Your task to perform on an android device: toggle pop-ups in chrome Image 0: 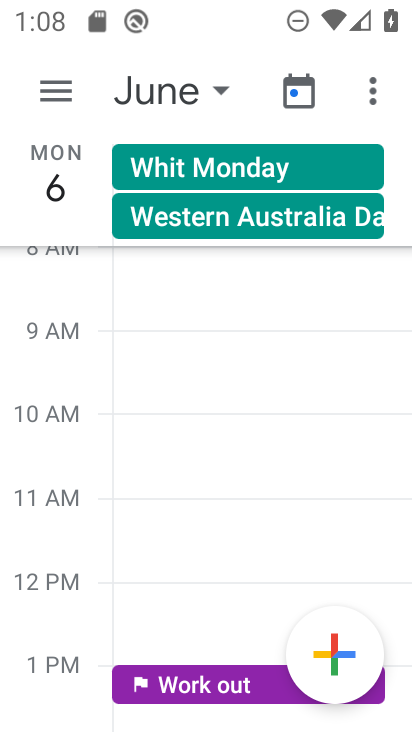
Step 0: press home button
Your task to perform on an android device: toggle pop-ups in chrome Image 1: 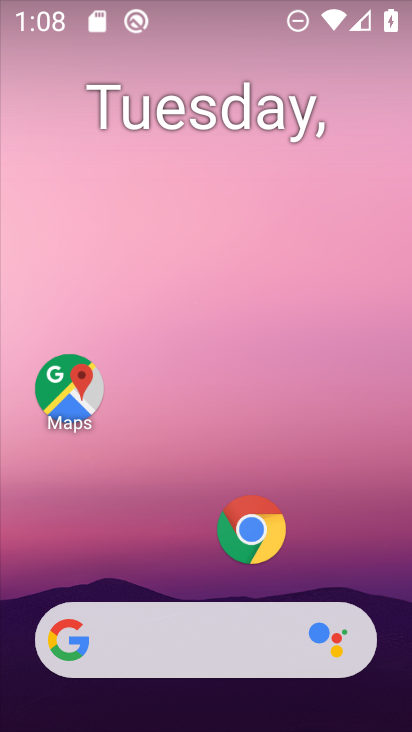
Step 1: click (263, 526)
Your task to perform on an android device: toggle pop-ups in chrome Image 2: 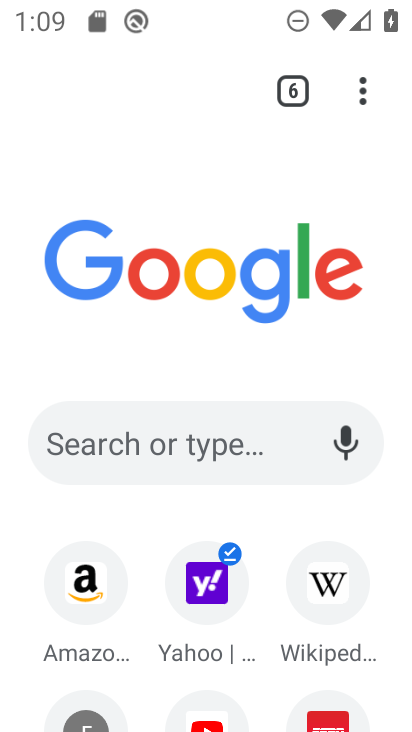
Step 2: click (362, 92)
Your task to perform on an android device: toggle pop-ups in chrome Image 3: 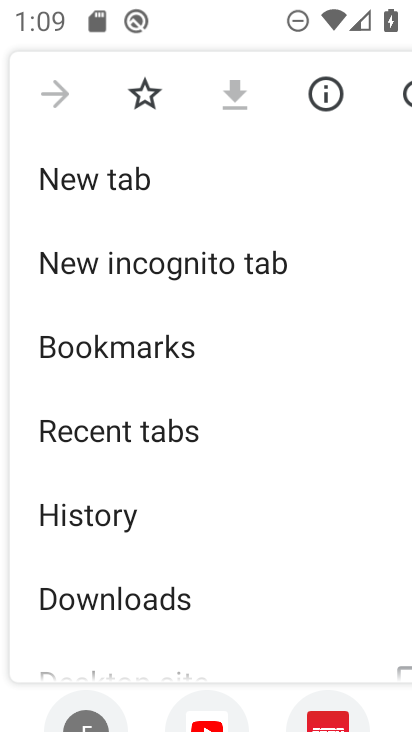
Step 3: drag from (74, 647) to (121, 335)
Your task to perform on an android device: toggle pop-ups in chrome Image 4: 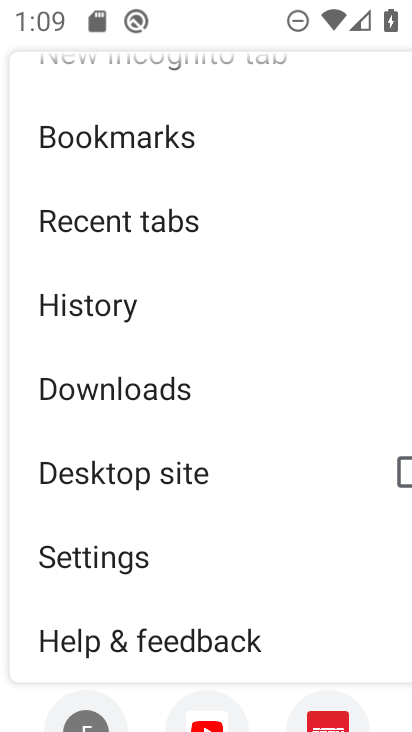
Step 4: click (133, 539)
Your task to perform on an android device: toggle pop-ups in chrome Image 5: 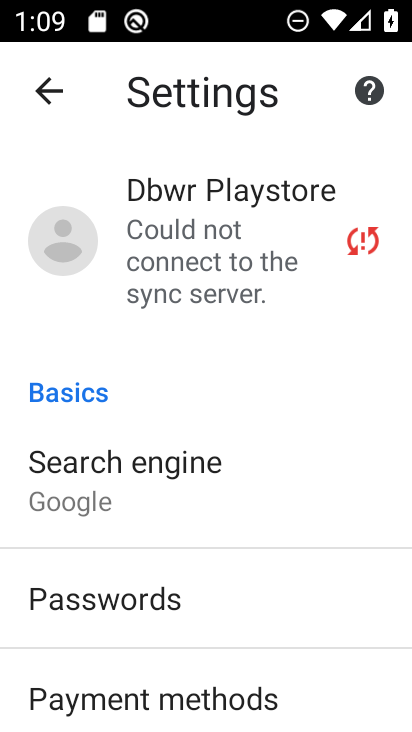
Step 5: drag from (106, 574) to (78, 153)
Your task to perform on an android device: toggle pop-ups in chrome Image 6: 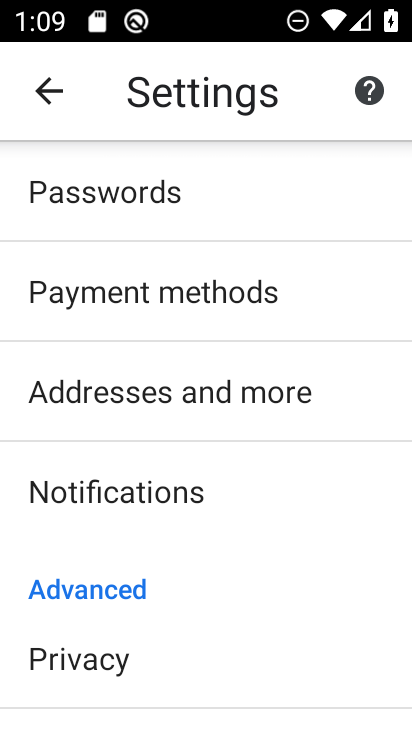
Step 6: drag from (218, 617) to (214, 351)
Your task to perform on an android device: toggle pop-ups in chrome Image 7: 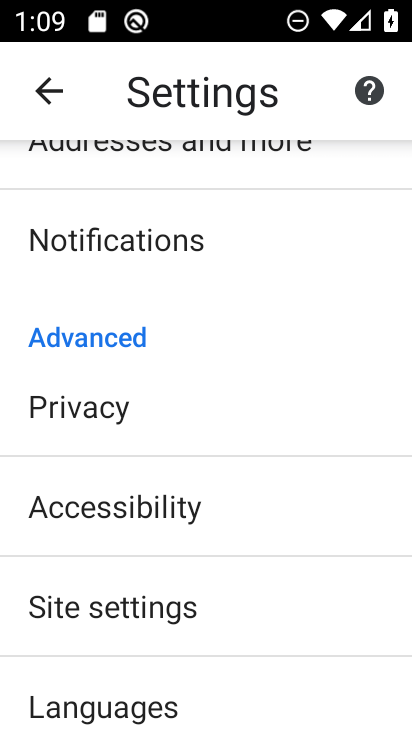
Step 7: click (103, 601)
Your task to perform on an android device: toggle pop-ups in chrome Image 8: 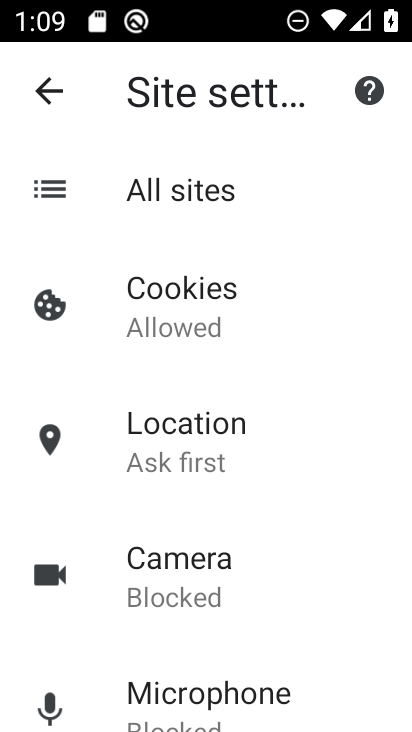
Step 8: drag from (190, 613) to (283, 341)
Your task to perform on an android device: toggle pop-ups in chrome Image 9: 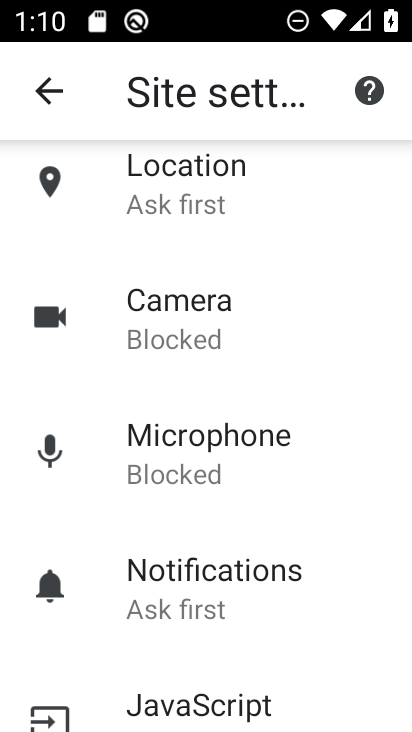
Step 9: drag from (196, 596) to (248, 388)
Your task to perform on an android device: toggle pop-ups in chrome Image 10: 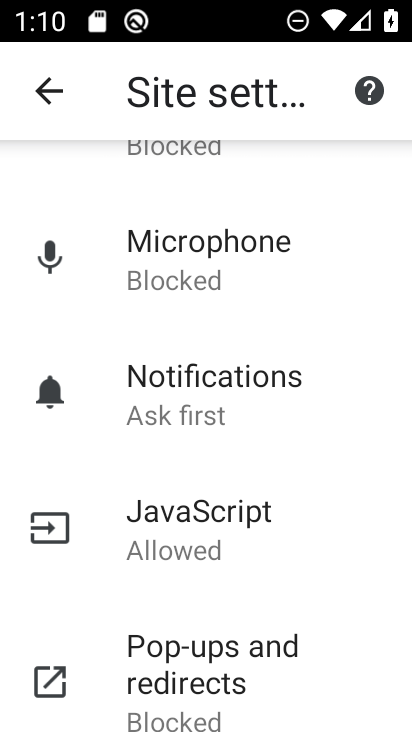
Step 10: click (165, 659)
Your task to perform on an android device: toggle pop-ups in chrome Image 11: 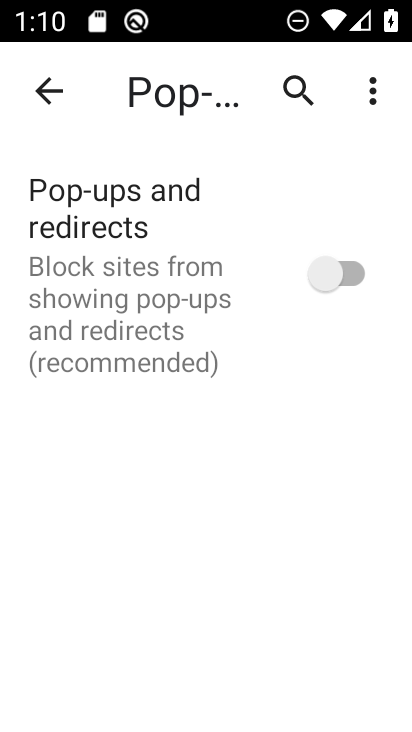
Step 11: task complete